Your task to perform on an android device: check out phone information Image 0: 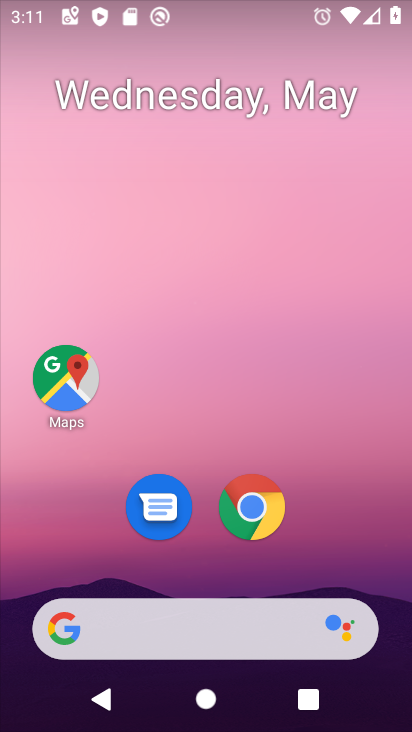
Step 0: drag from (188, 550) to (188, 117)
Your task to perform on an android device: check out phone information Image 1: 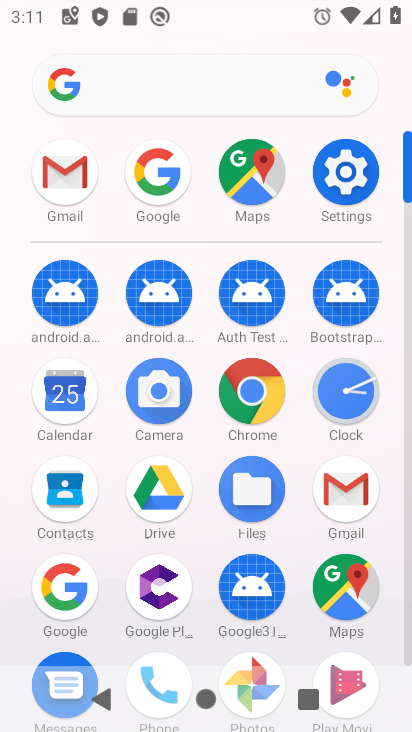
Step 1: click (348, 168)
Your task to perform on an android device: check out phone information Image 2: 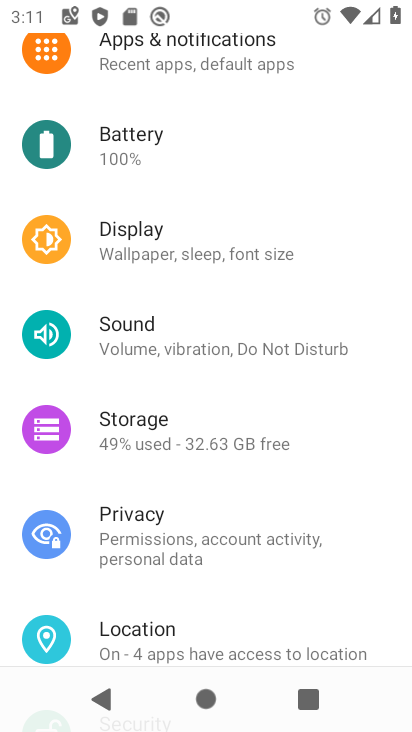
Step 2: drag from (263, 607) to (375, 47)
Your task to perform on an android device: check out phone information Image 3: 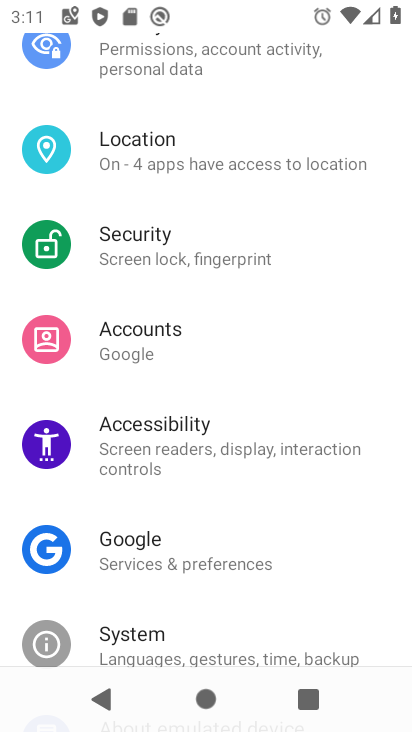
Step 3: drag from (253, 574) to (277, 166)
Your task to perform on an android device: check out phone information Image 4: 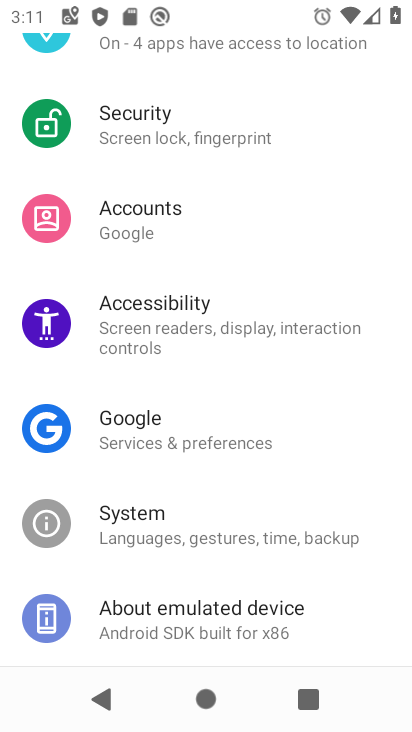
Step 4: click (177, 623)
Your task to perform on an android device: check out phone information Image 5: 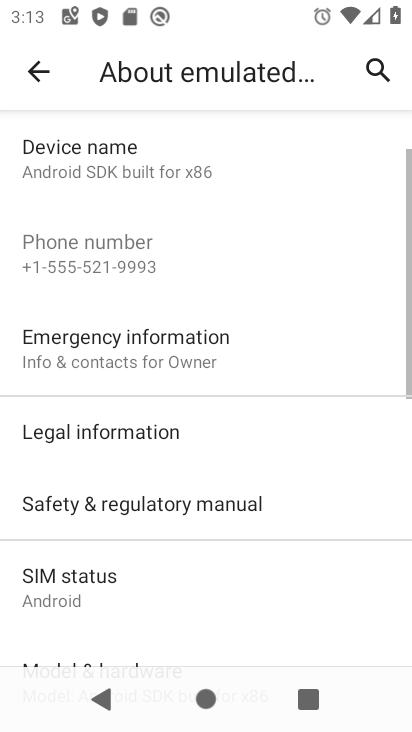
Step 5: task complete